Your task to perform on an android device: Show me recent news Image 0: 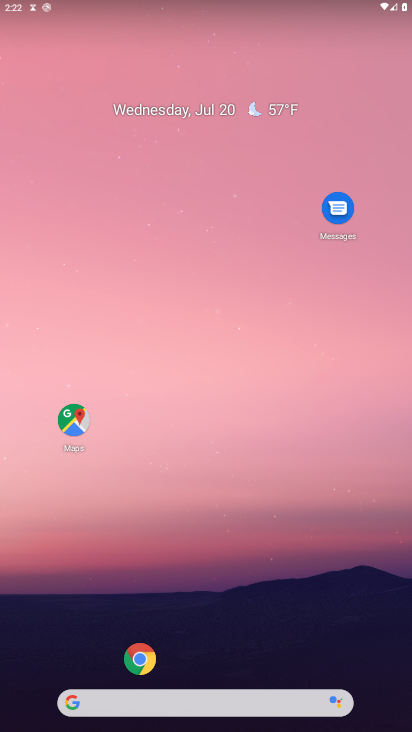
Step 0: click (133, 698)
Your task to perform on an android device: Show me recent news Image 1: 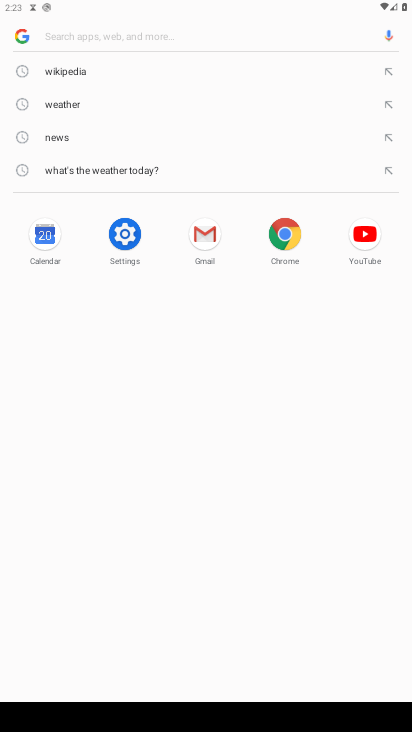
Step 1: type "Show me recent news"
Your task to perform on an android device: Show me recent news Image 2: 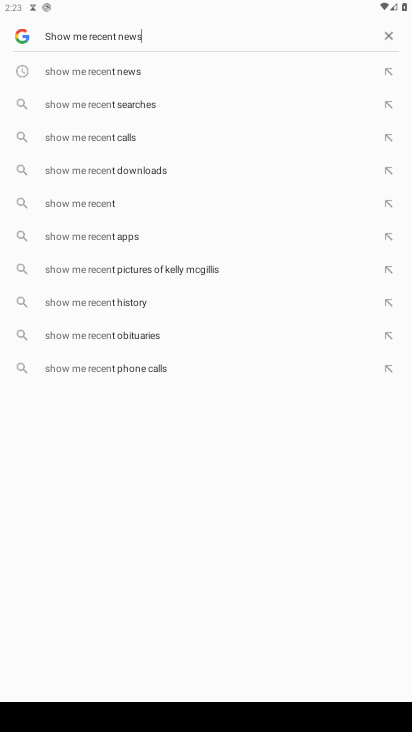
Step 2: type ""
Your task to perform on an android device: Show me recent news Image 3: 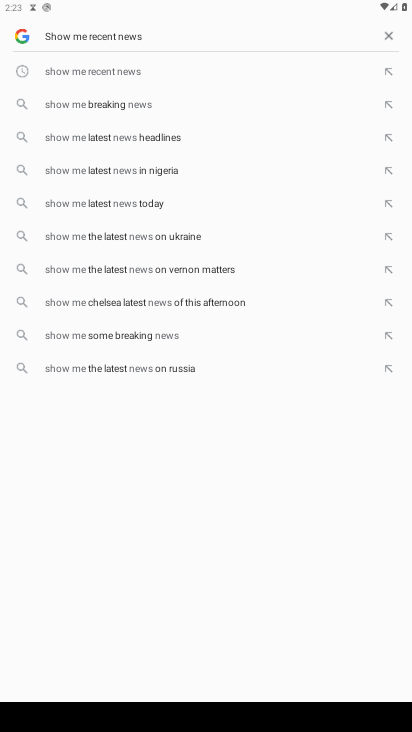
Step 3: click (107, 70)
Your task to perform on an android device: Show me recent news Image 4: 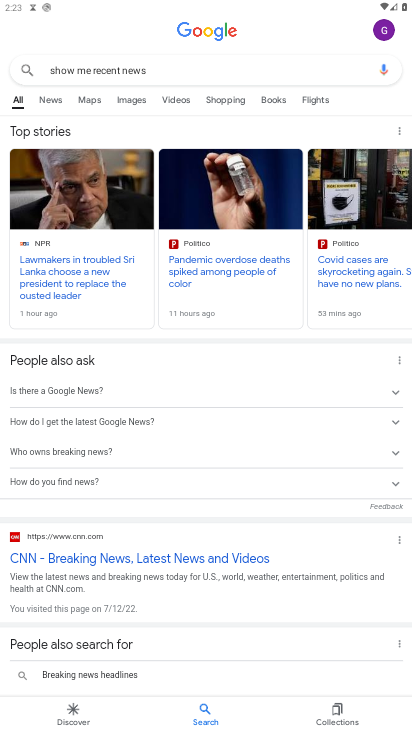
Step 4: task complete